Your task to perform on an android device: turn off notifications settings in the gmail app Image 0: 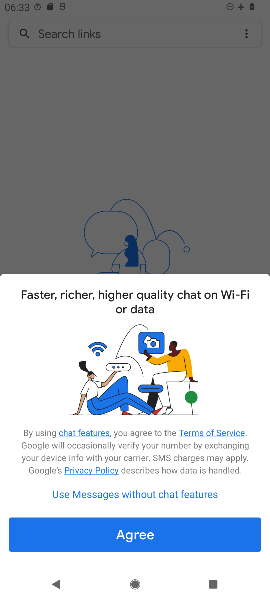
Step 0: press home button
Your task to perform on an android device: turn off notifications settings in the gmail app Image 1: 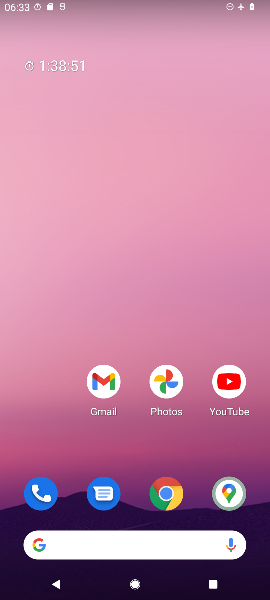
Step 1: drag from (67, 463) to (71, 37)
Your task to perform on an android device: turn off notifications settings in the gmail app Image 2: 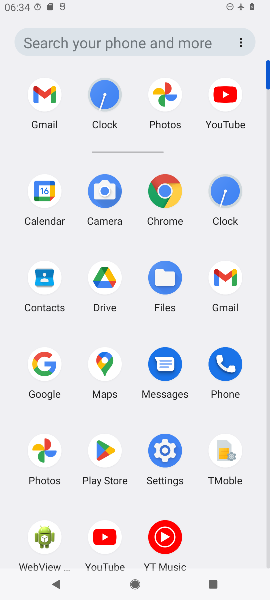
Step 2: click (230, 286)
Your task to perform on an android device: turn off notifications settings in the gmail app Image 3: 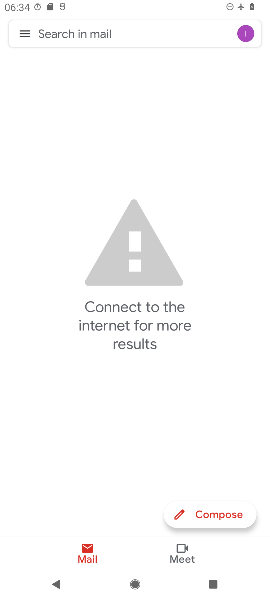
Step 3: click (29, 30)
Your task to perform on an android device: turn off notifications settings in the gmail app Image 4: 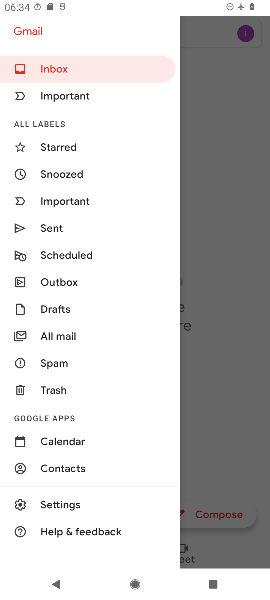
Step 4: click (96, 494)
Your task to perform on an android device: turn off notifications settings in the gmail app Image 5: 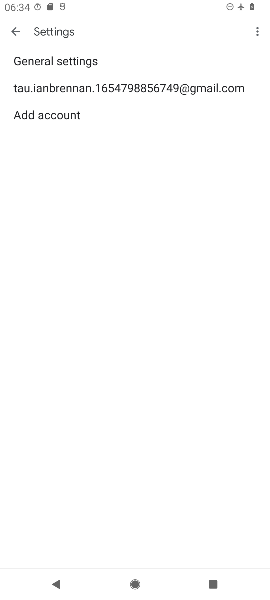
Step 5: click (168, 92)
Your task to perform on an android device: turn off notifications settings in the gmail app Image 6: 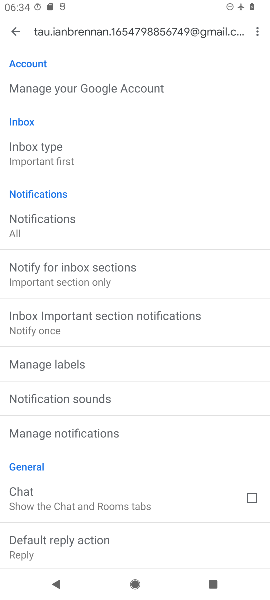
Step 6: drag from (172, 389) to (172, 253)
Your task to perform on an android device: turn off notifications settings in the gmail app Image 7: 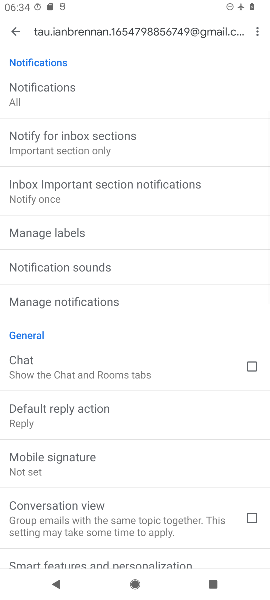
Step 7: drag from (193, 405) to (183, 288)
Your task to perform on an android device: turn off notifications settings in the gmail app Image 8: 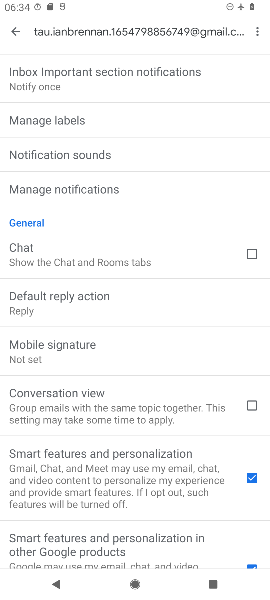
Step 8: drag from (145, 447) to (139, 324)
Your task to perform on an android device: turn off notifications settings in the gmail app Image 9: 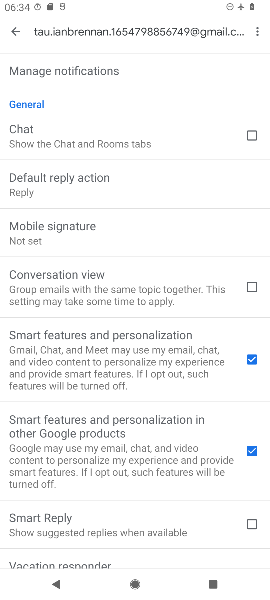
Step 9: drag from (154, 482) to (154, 307)
Your task to perform on an android device: turn off notifications settings in the gmail app Image 10: 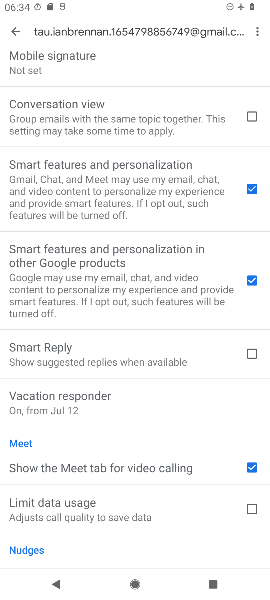
Step 10: drag from (162, 193) to (183, 456)
Your task to perform on an android device: turn off notifications settings in the gmail app Image 11: 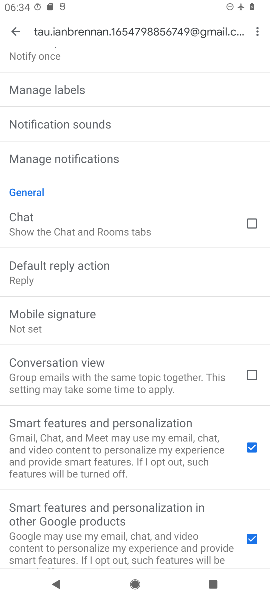
Step 11: drag from (198, 138) to (207, 392)
Your task to perform on an android device: turn off notifications settings in the gmail app Image 12: 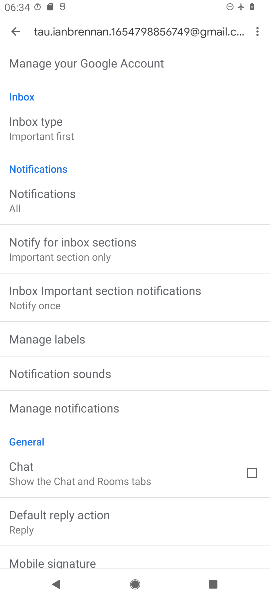
Step 12: click (131, 399)
Your task to perform on an android device: turn off notifications settings in the gmail app Image 13: 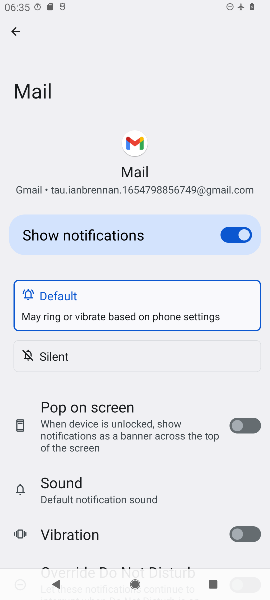
Step 13: click (236, 238)
Your task to perform on an android device: turn off notifications settings in the gmail app Image 14: 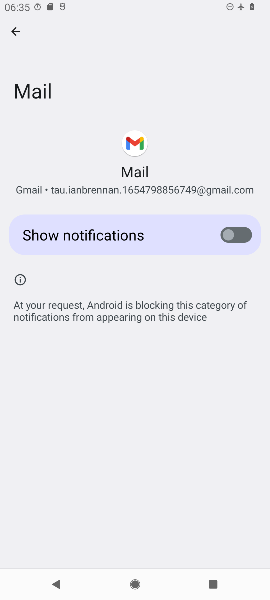
Step 14: task complete